Your task to perform on an android device: turn on javascript in the chrome app Image 0: 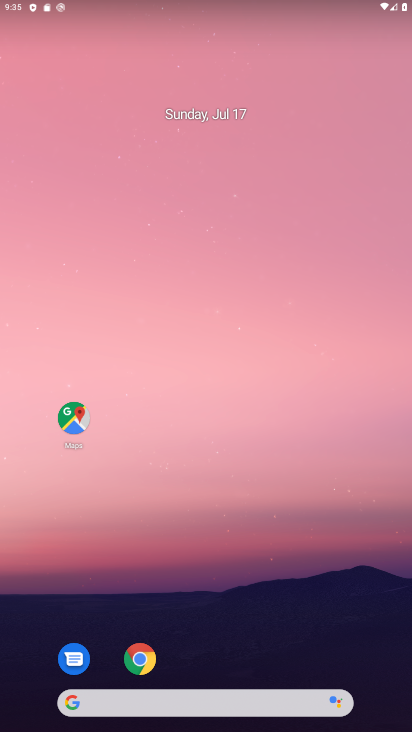
Step 0: click (143, 658)
Your task to perform on an android device: turn on javascript in the chrome app Image 1: 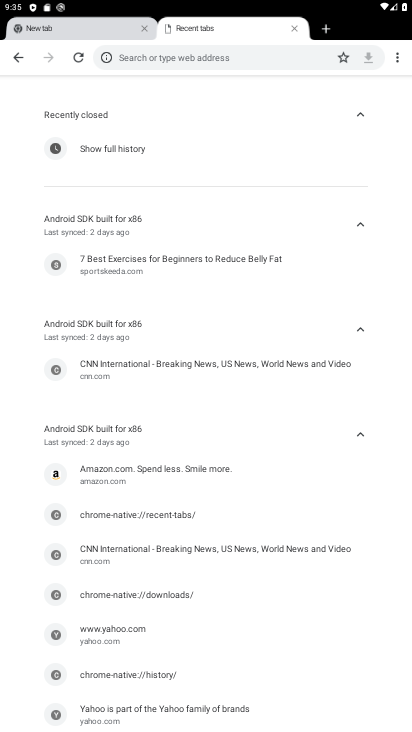
Step 1: click (403, 61)
Your task to perform on an android device: turn on javascript in the chrome app Image 2: 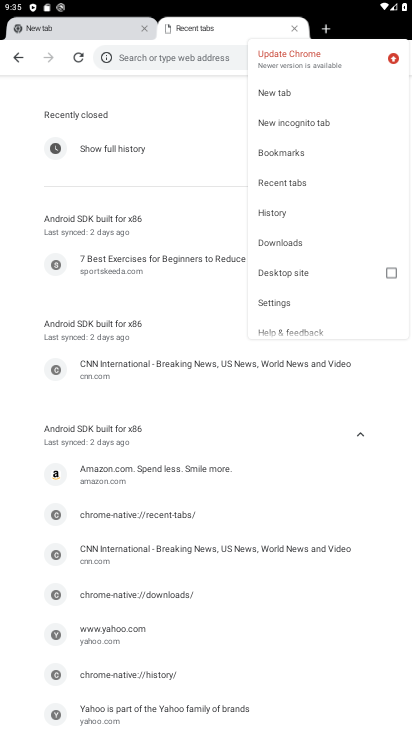
Step 2: click (296, 305)
Your task to perform on an android device: turn on javascript in the chrome app Image 3: 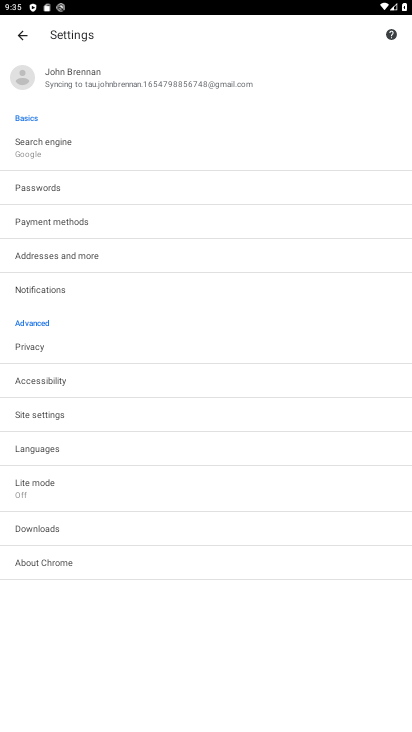
Step 3: click (55, 422)
Your task to perform on an android device: turn on javascript in the chrome app Image 4: 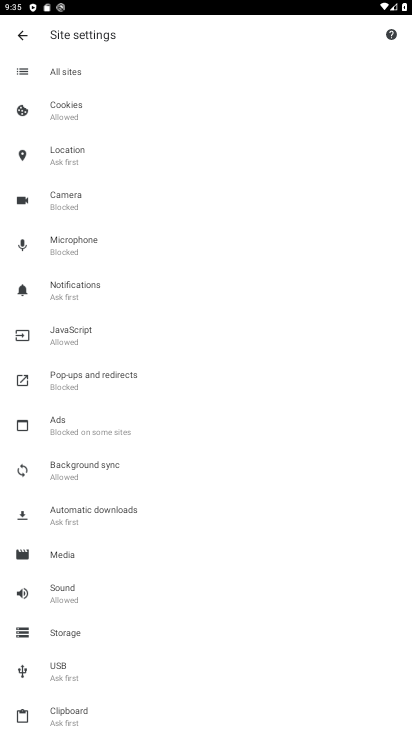
Step 4: click (95, 336)
Your task to perform on an android device: turn on javascript in the chrome app Image 5: 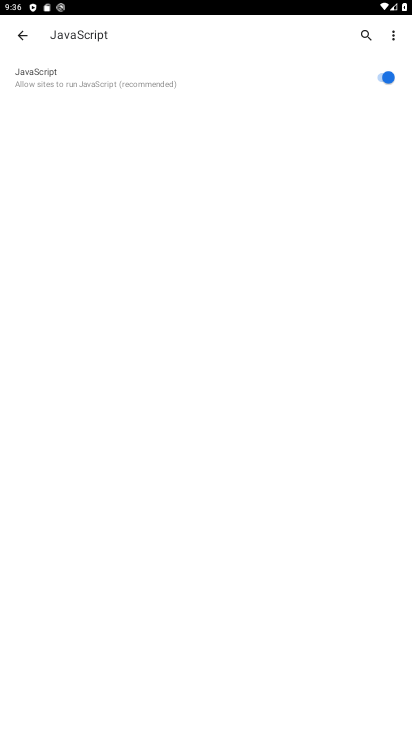
Step 5: task complete